Your task to perform on an android device: all mails in gmail Image 0: 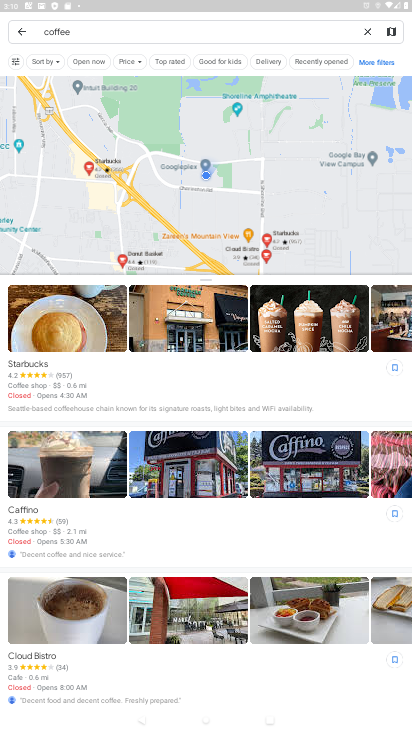
Step 0: press home button
Your task to perform on an android device: all mails in gmail Image 1: 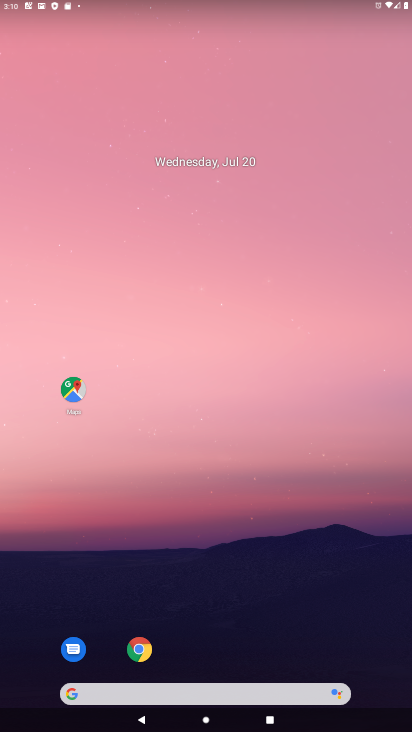
Step 1: drag from (171, 694) to (207, 62)
Your task to perform on an android device: all mails in gmail Image 2: 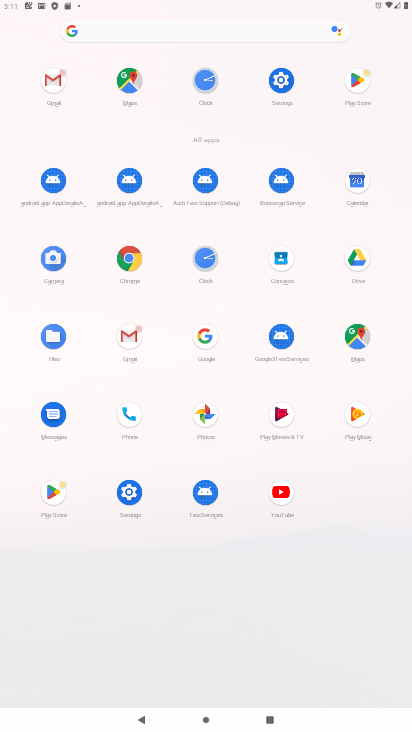
Step 2: click (53, 79)
Your task to perform on an android device: all mails in gmail Image 3: 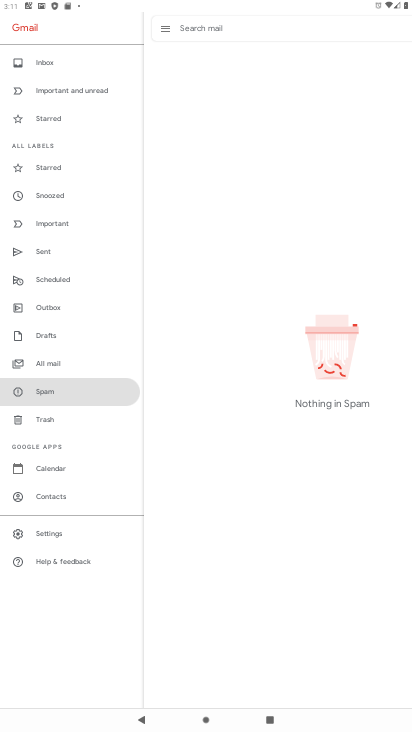
Step 3: click (48, 365)
Your task to perform on an android device: all mails in gmail Image 4: 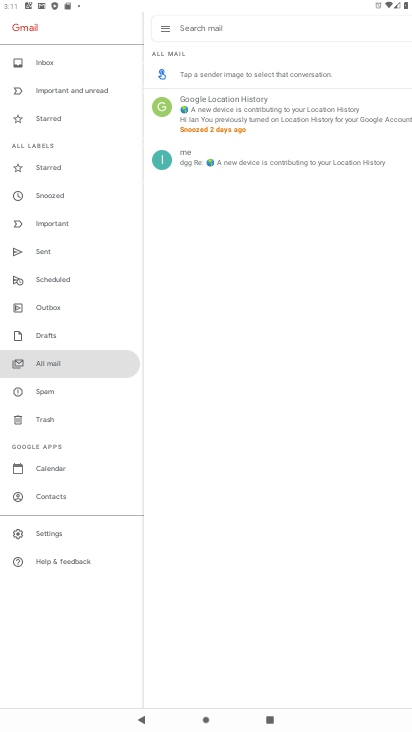
Step 4: task complete